Your task to perform on an android device: What is the recent news? Image 0: 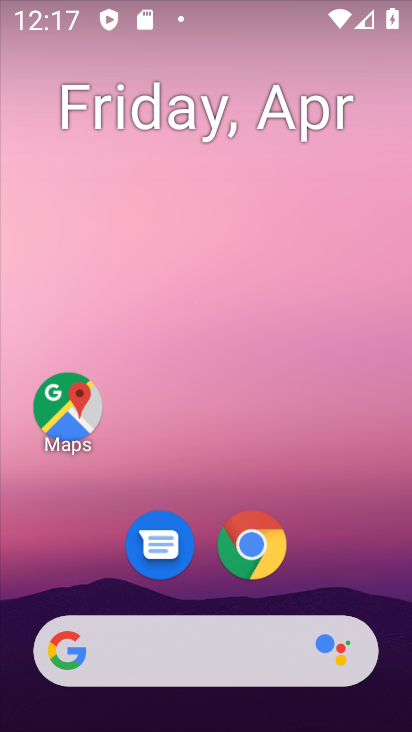
Step 0: click (162, 652)
Your task to perform on an android device: What is the recent news? Image 1: 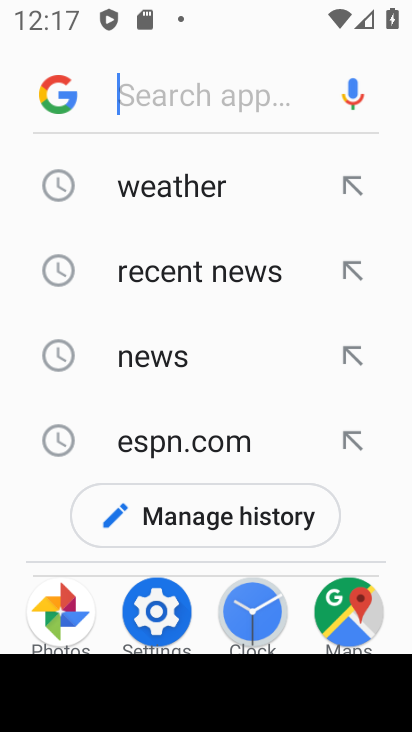
Step 1: click (230, 276)
Your task to perform on an android device: What is the recent news? Image 2: 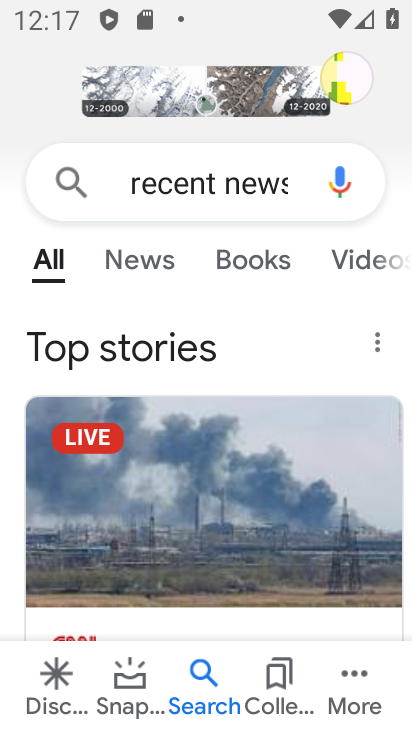
Step 2: click (158, 265)
Your task to perform on an android device: What is the recent news? Image 3: 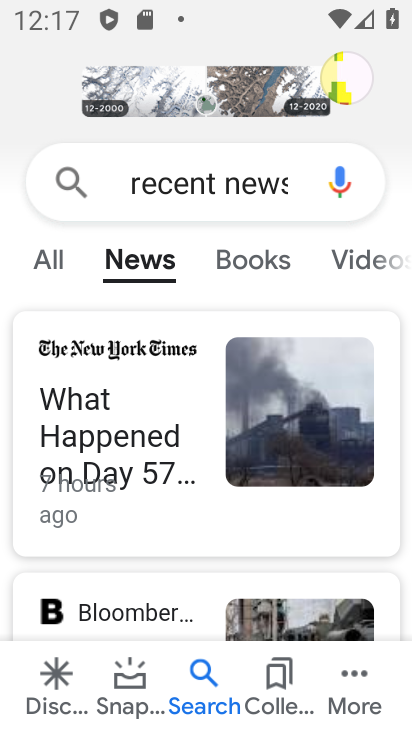
Step 3: task complete